Your task to perform on an android device: Turn off the flashlight Image 0: 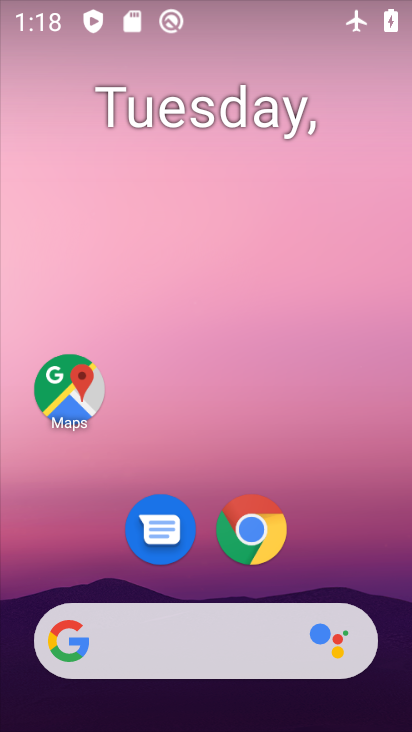
Step 0: drag from (306, 5) to (311, 371)
Your task to perform on an android device: Turn off the flashlight Image 1: 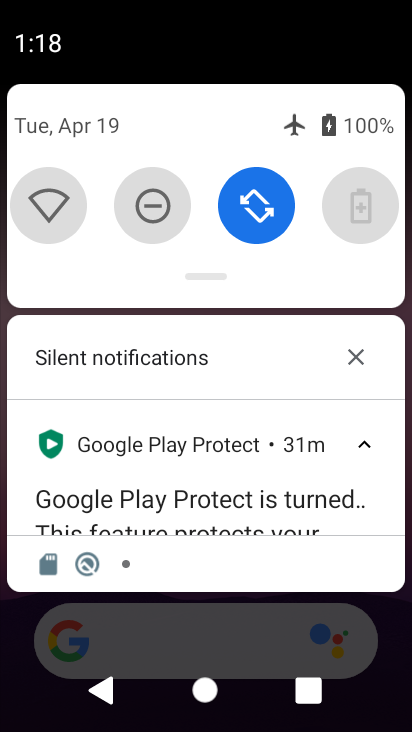
Step 1: drag from (302, 229) to (286, 424)
Your task to perform on an android device: Turn off the flashlight Image 2: 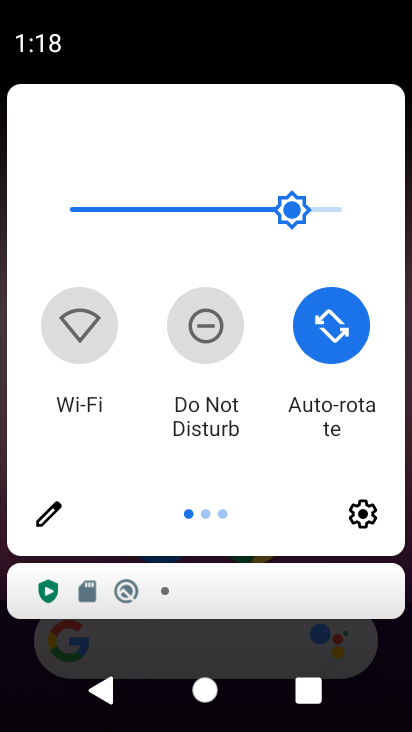
Step 2: drag from (394, 371) to (1, 311)
Your task to perform on an android device: Turn off the flashlight Image 3: 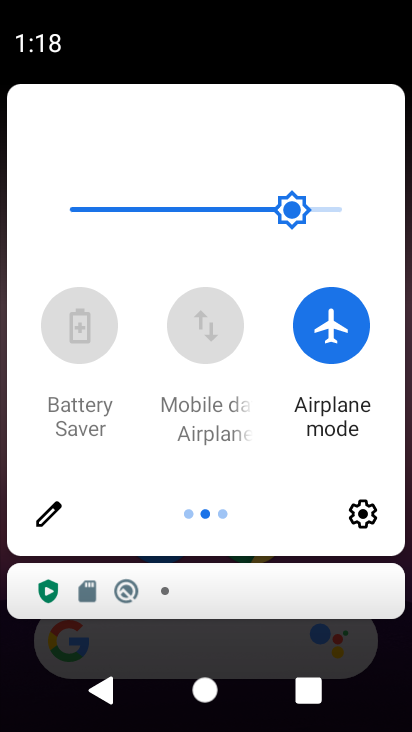
Step 3: drag from (393, 374) to (22, 431)
Your task to perform on an android device: Turn off the flashlight Image 4: 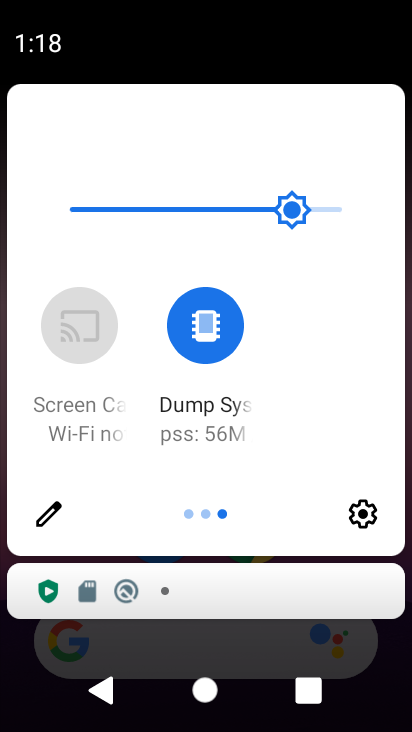
Step 4: click (52, 510)
Your task to perform on an android device: Turn off the flashlight Image 5: 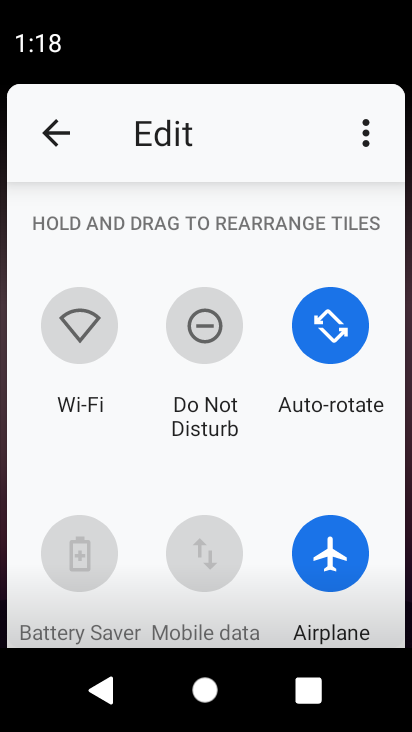
Step 5: task complete